Your task to perform on an android device: Search for sushi restaurants on Maps Image 0: 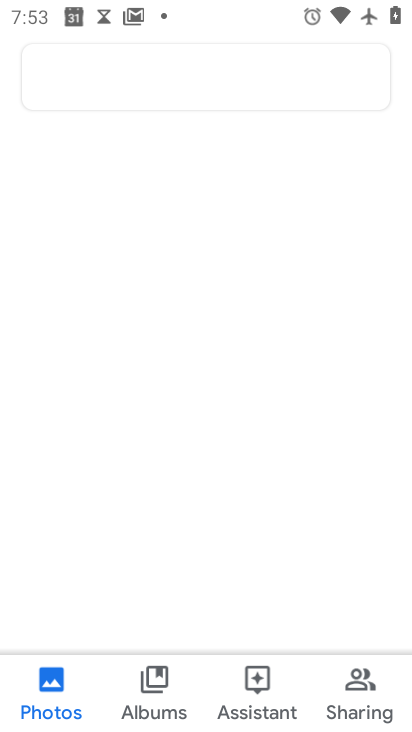
Step 0: press home button
Your task to perform on an android device: Search for sushi restaurants on Maps Image 1: 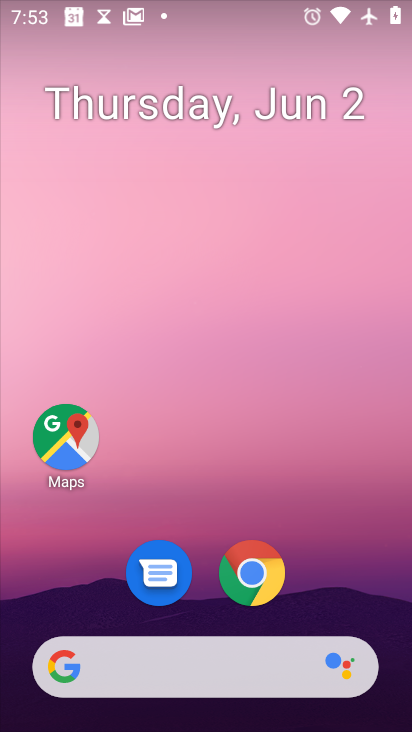
Step 1: click (55, 442)
Your task to perform on an android device: Search for sushi restaurants on Maps Image 2: 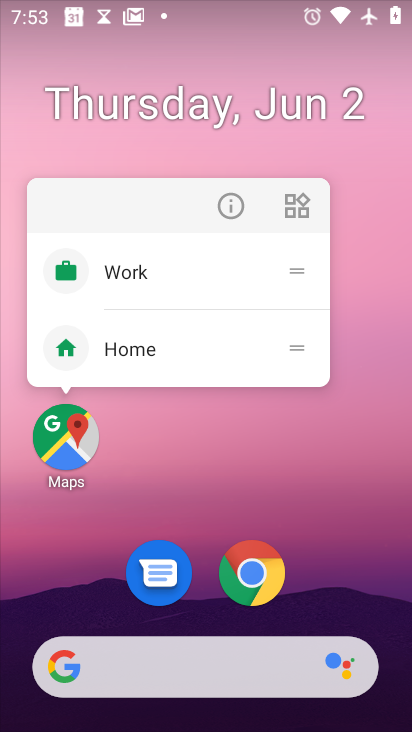
Step 2: click (62, 449)
Your task to perform on an android device: Search for sushi restaurants on Maps Image 3: 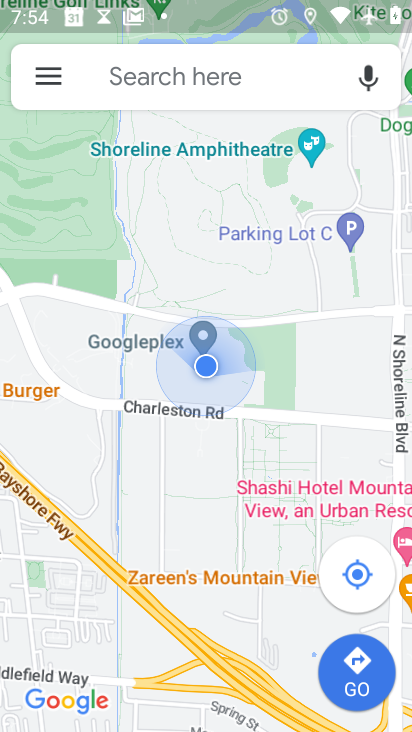
Step 3: click (166, 86)
Your task to perform on an android device: Search for sushi restaurants on Maps Image 4: 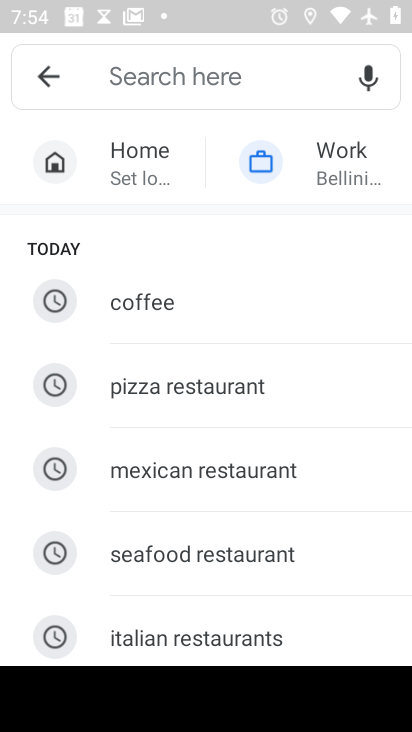
Step 4: drag from (317, 609) to (365, 241)
Your task to perform on an android device: Search for sushi restaurants on Maps Image 5: 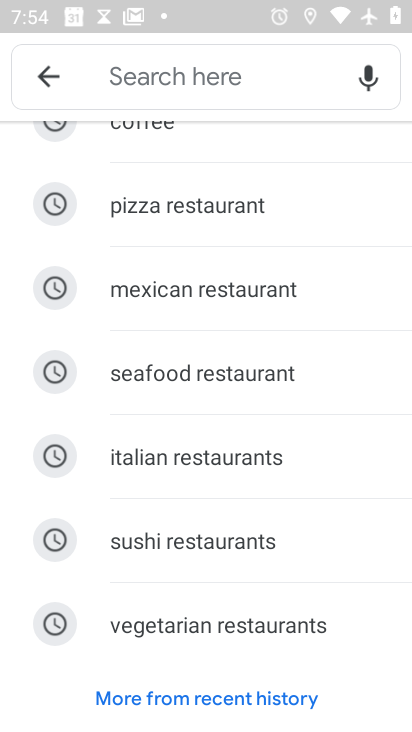
Step 5: click (196, 540)
Your task to perform on an android device: Search for sushi restaurants on Maps Image 6: 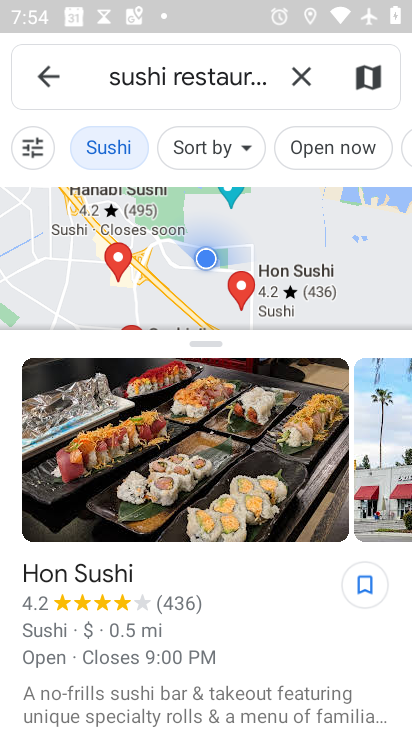
Step 6: task complete